Your task to perform on an android device: install app "Google News" Image 0: 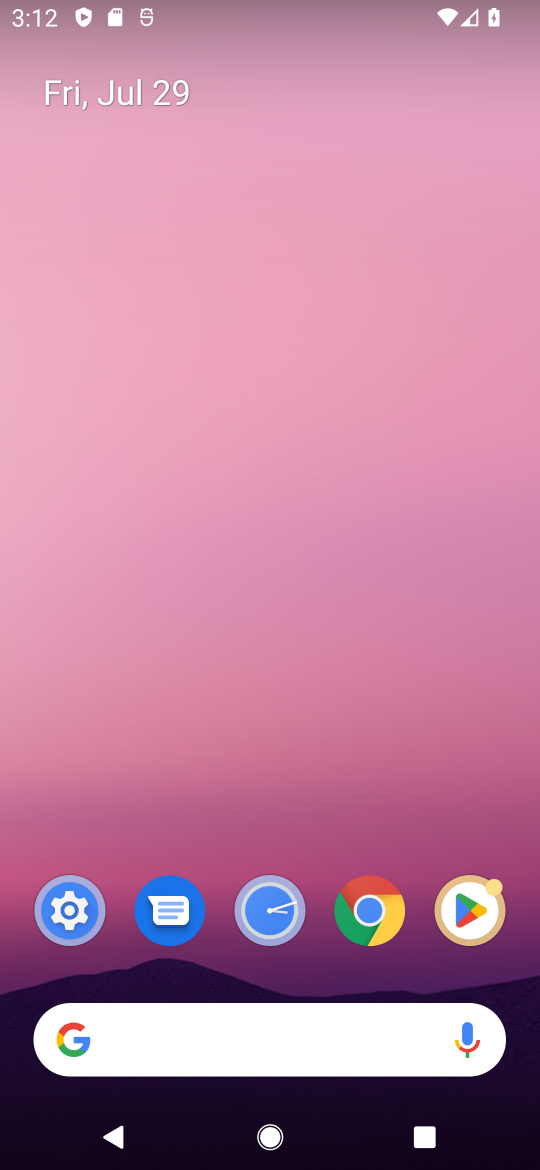
Step 0: drag from (313, 744) to (311, 303)
Your task to perform on an android device: install app "Google News" Image 1: 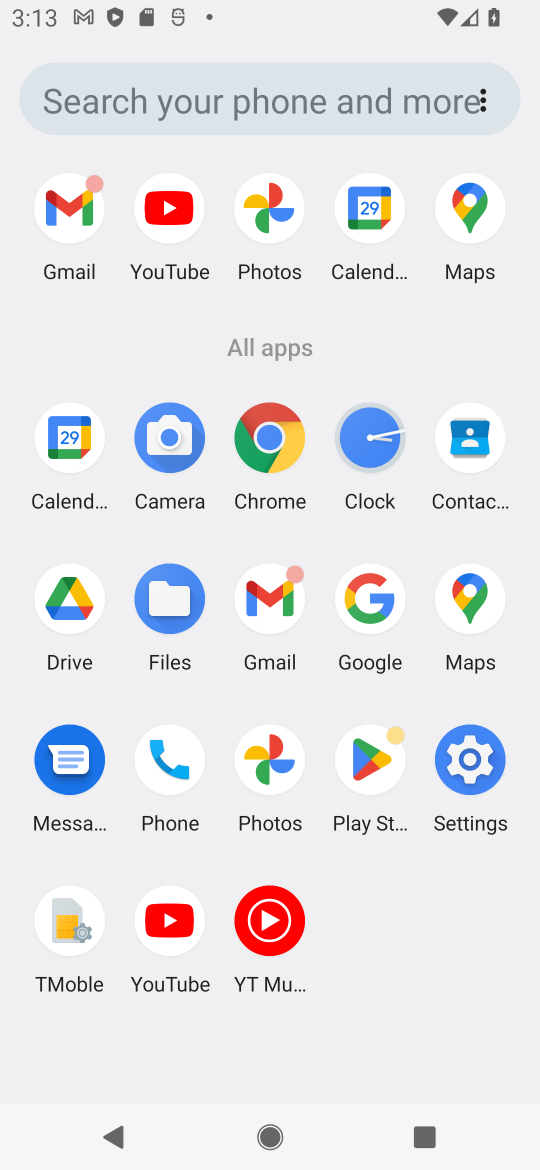
Step 1: drag from (482, 694) to (66, 704)
Your task to perform on an android device: install app "Google News" Image 2: 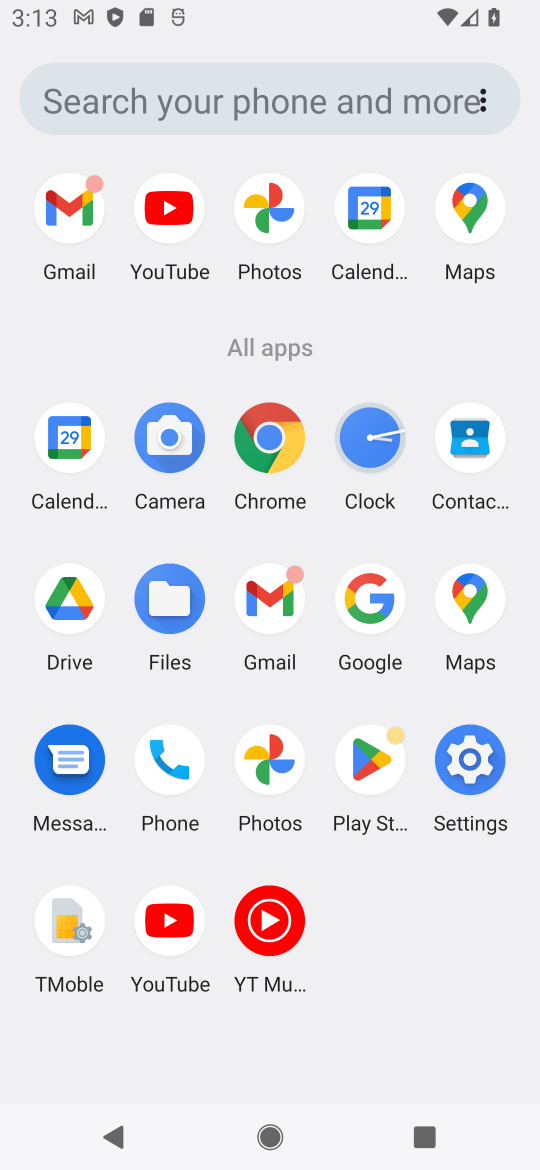
Step 2: drag from (56, 535) to (408, 534)
Your task to perform on an android device: install app "Google News" Image 3: 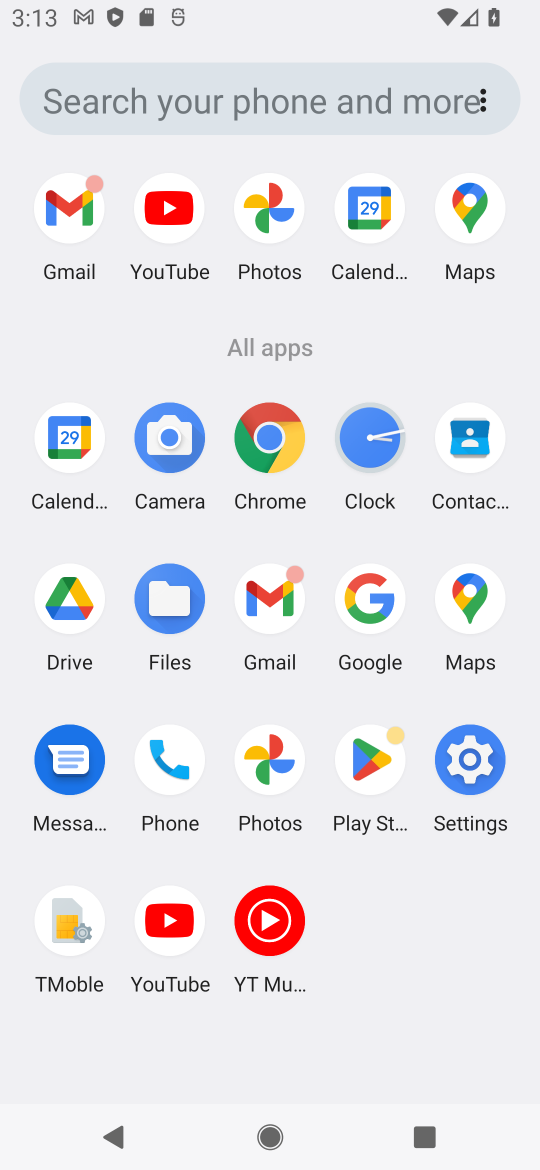
Step 3: drag from (397, 815) to (443, 529)
Your task to perform on an android device: install app "Google News" Image 4: 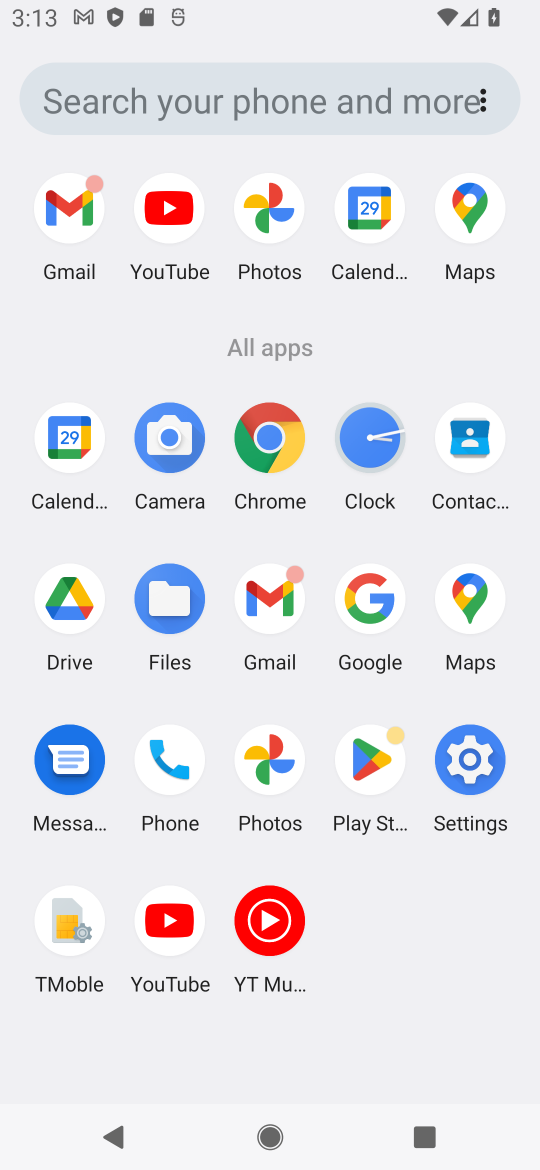
Step 4: click (372, 774)
Your task to perform on an android device: install app "Google News" Image 5: 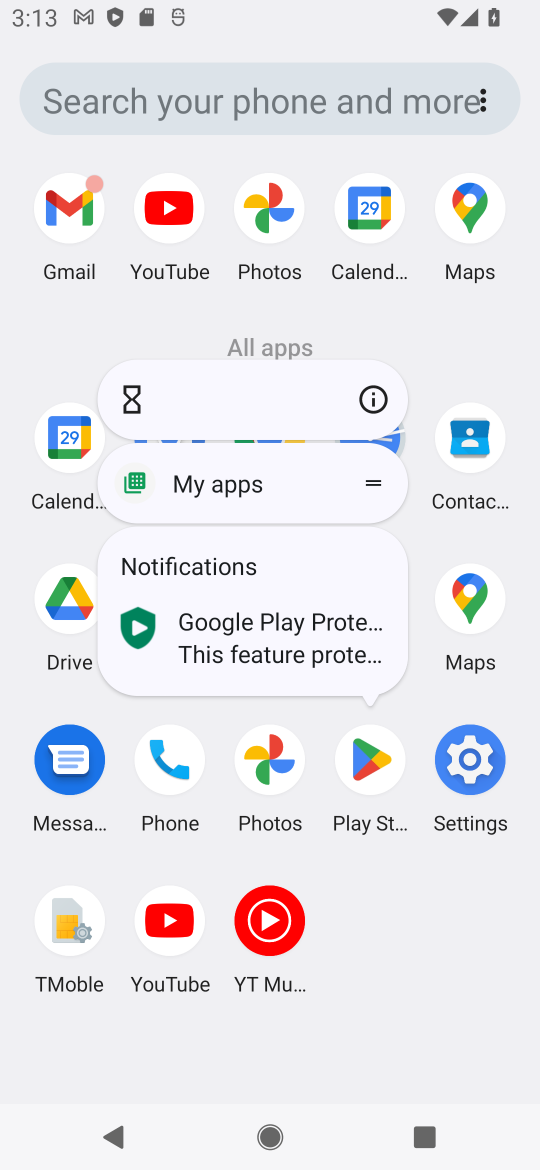
Step 5: click (361, 766)
Your task to perform on an android device: install app "Google News" Image 6: 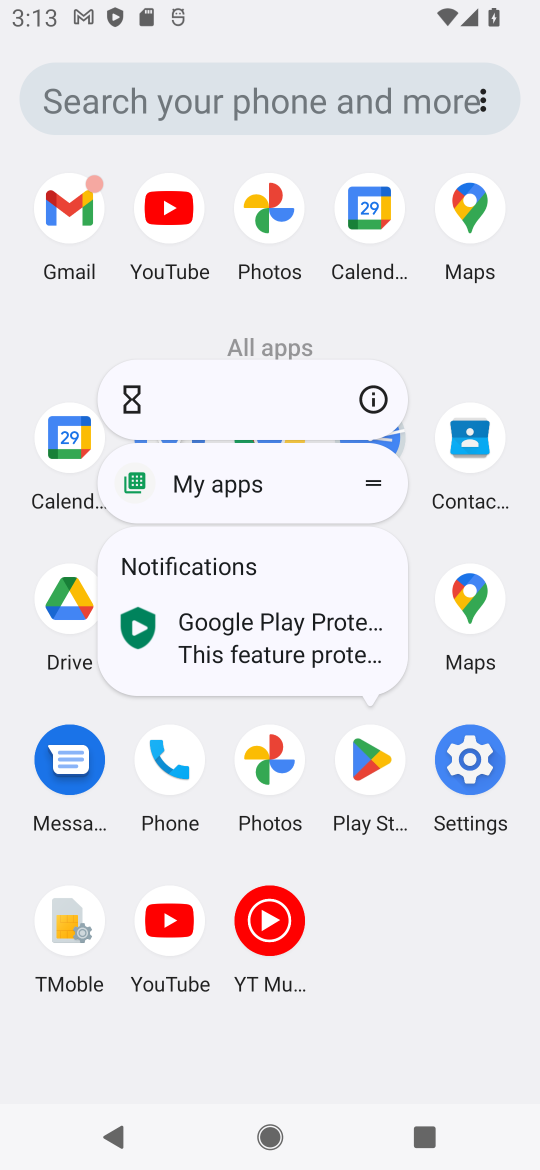
Step 6: click (369, 779)
Your task to perform on an android device: install app "Google News" Image 7: 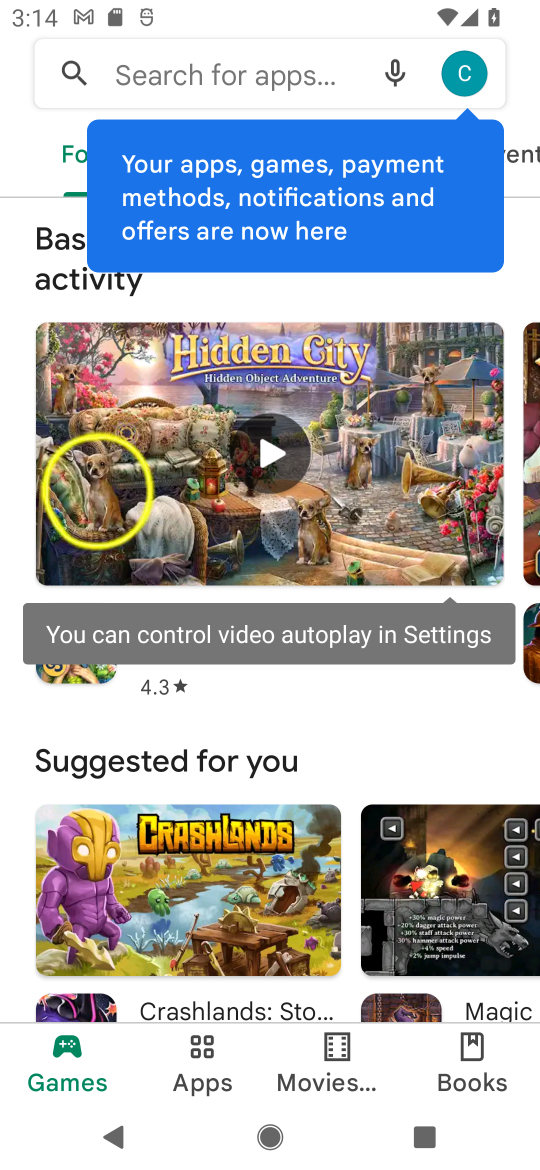
Step 7: click (239, 80)
Your task to perform on an android device: install app "Google News" Image 8: 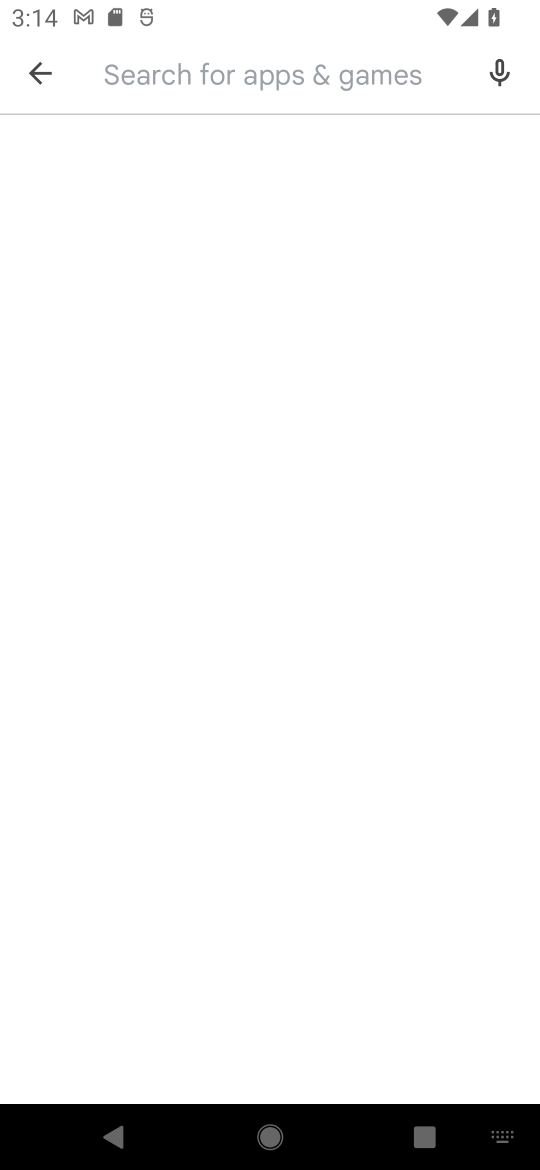
Step 8: type "Google news"
Your task to perform on an android device: install app "Google News" Image 9: 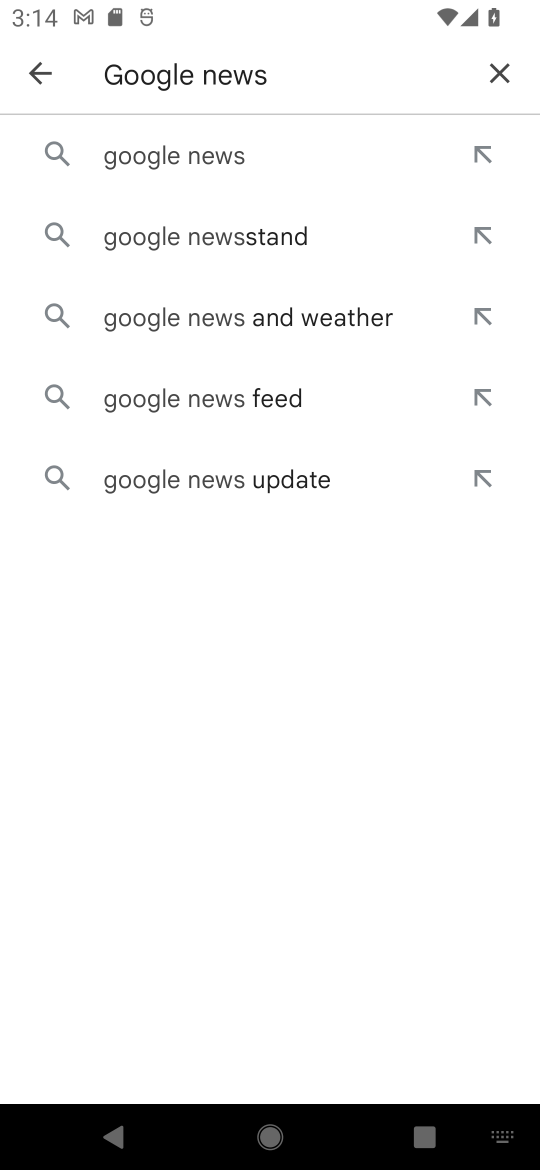
Step 9: click (163, 145)
Your task to perform on an android device: install app "Google News" Image 10: 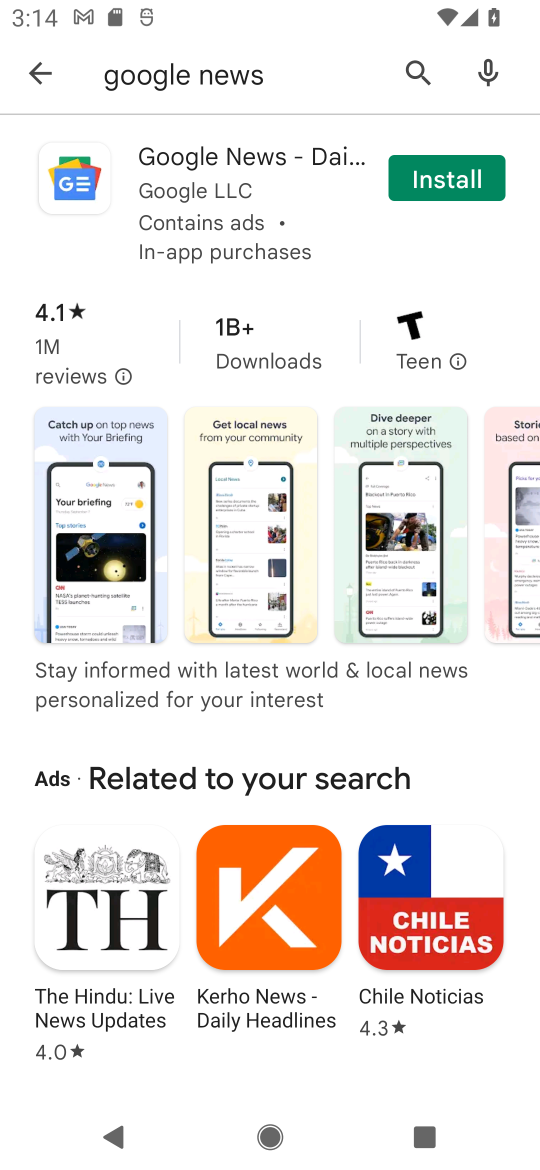
Step 10: click (460, 184)
Your task to perform on an android device: install app "Google News" Image 11: 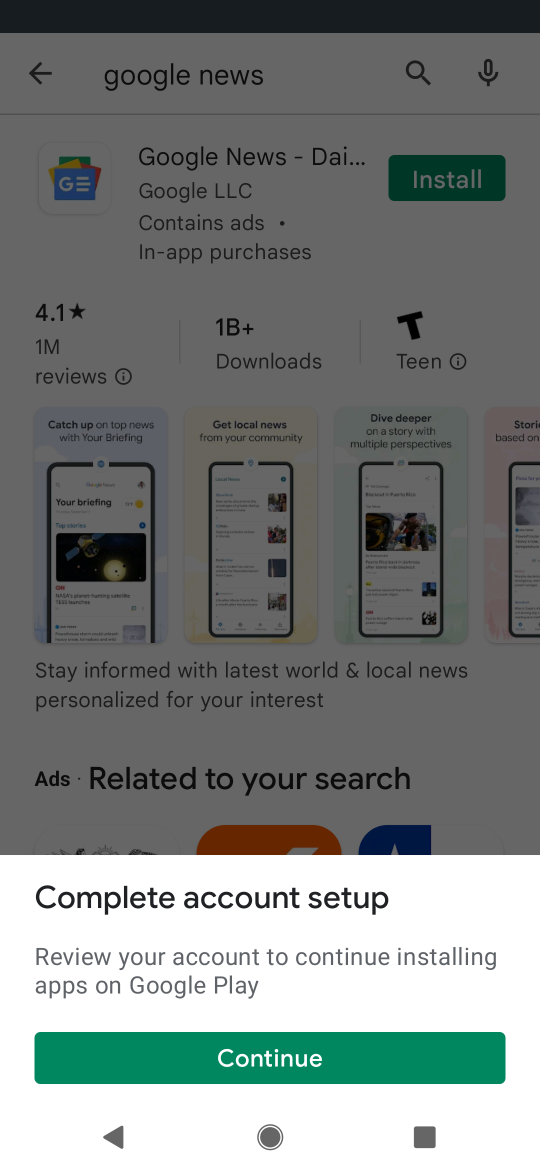
Step 11: click (333, 1061)
Your task to perform on an android device: install app "Google News" Image 12: 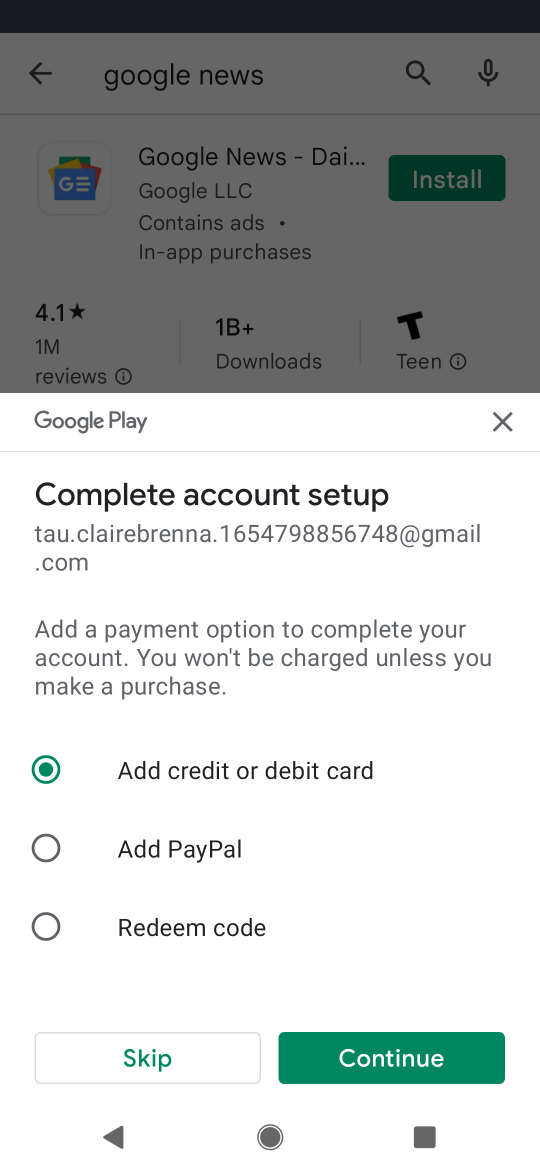
Step 12: click (508, 432)
Your task to perform on an android device: install app "Google News" Image 13: 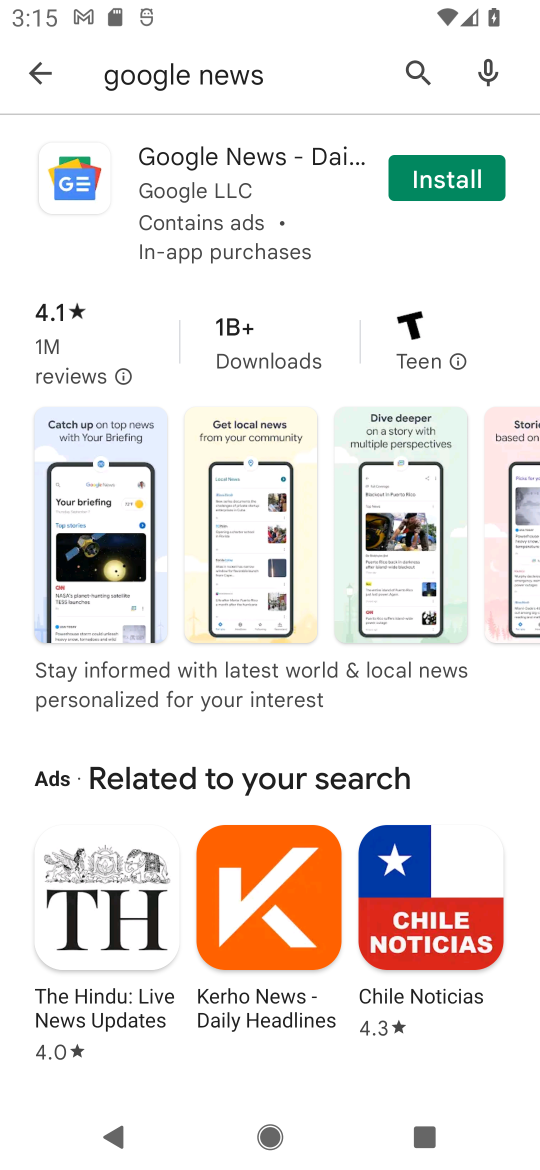
Step 13: click (439, 182)
Your task to perform on an android device: install app "Google News" Image 14: 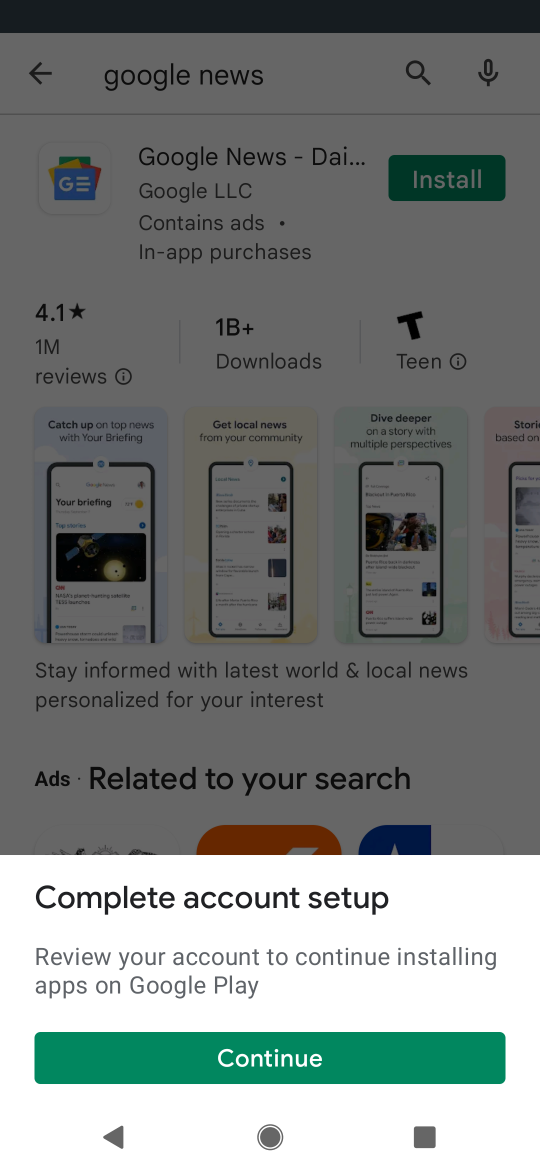
Step 14: task complete